Your task to perform on an android device: set the timer Image 0: 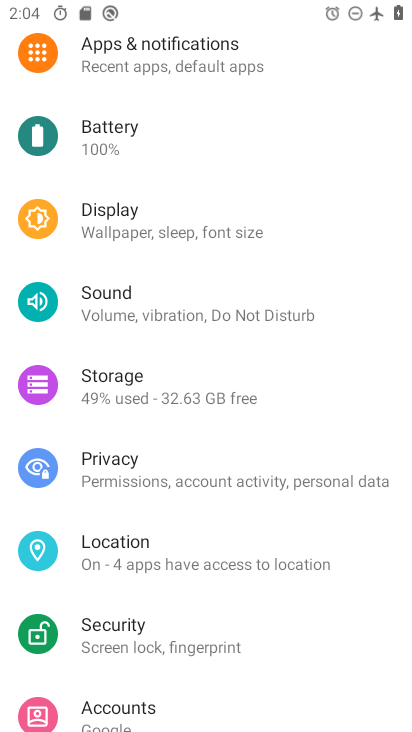
Step 0: press home button
Your task to perform on an android device: set the timer Image 1: 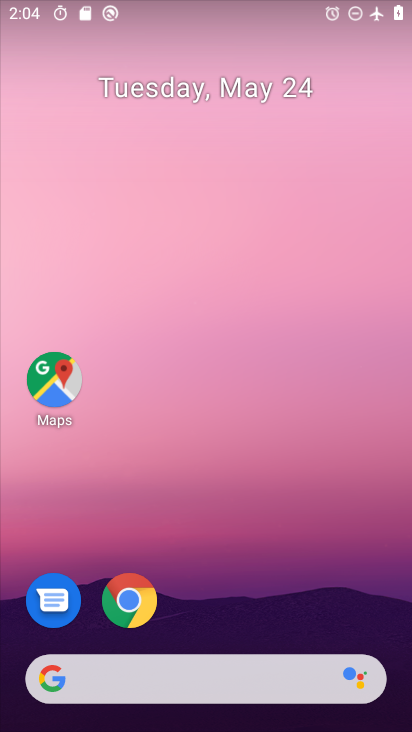
Step 1: drag from (229, 580) to (194, 144)
Your task to perform on an android device: set the timer Image 2: 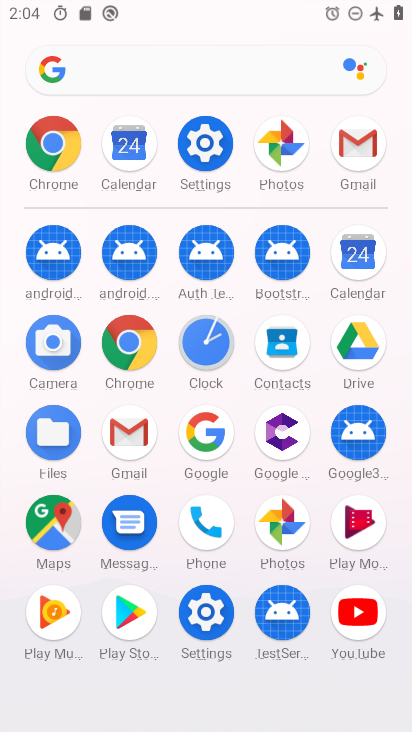
Step 2: click (197, 354)
Your task to perform on an android device: set the timer Image 3: 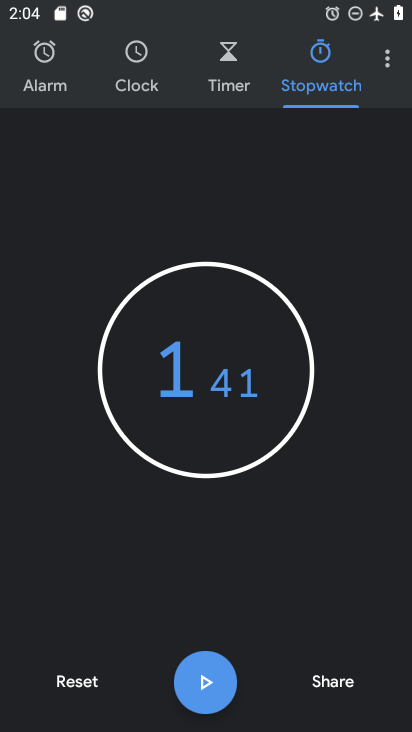
Step 3: click (234, 67)
Your task to perform on an android device: set the timer Image 4: 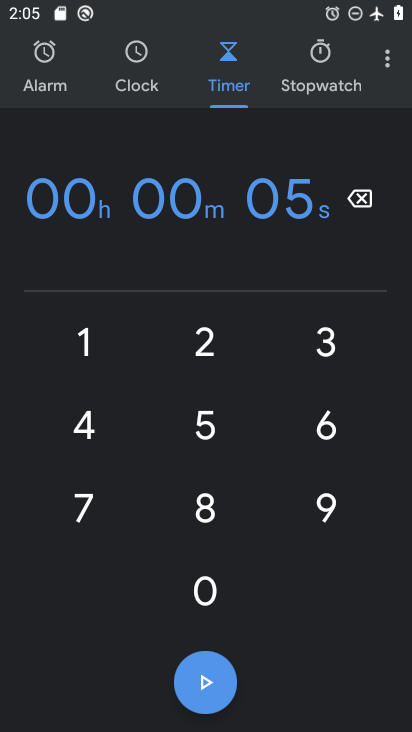
Step 4: task complete